Your task to perform on an android device: turn vacation reply on in the gmail app Image 0: 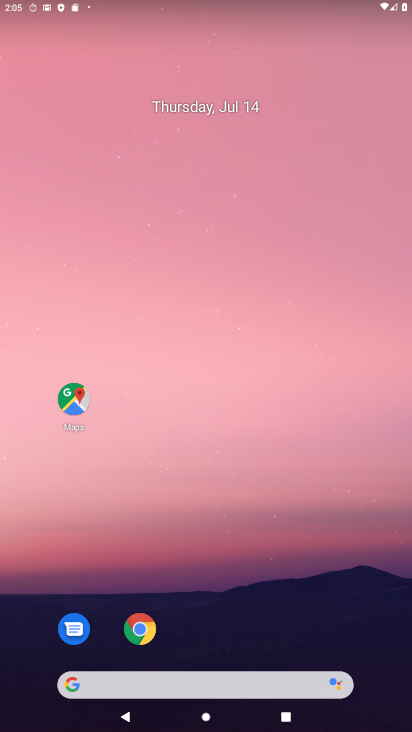
Step 0: drag from (232, 657) to (229, 4)
Your task to perform on an android device: turn vacation reply on in the gmail app Image 1: 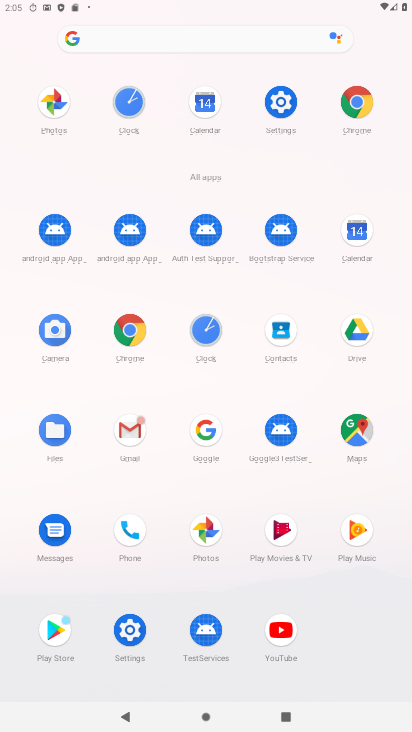
Step 1: click (133, 434)
Your task to perform on an android device: turn vacation reply on in the gmail app Image 2: 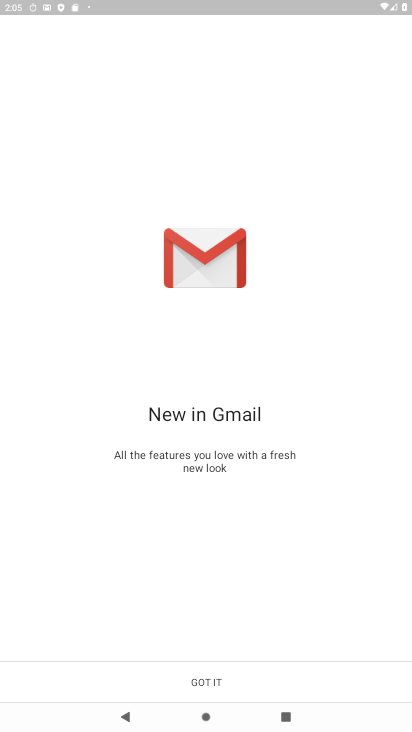
Step 2: click (237, 675)
Your task to perform on an android device: turn vacation reply on in the gmail app Image 3: 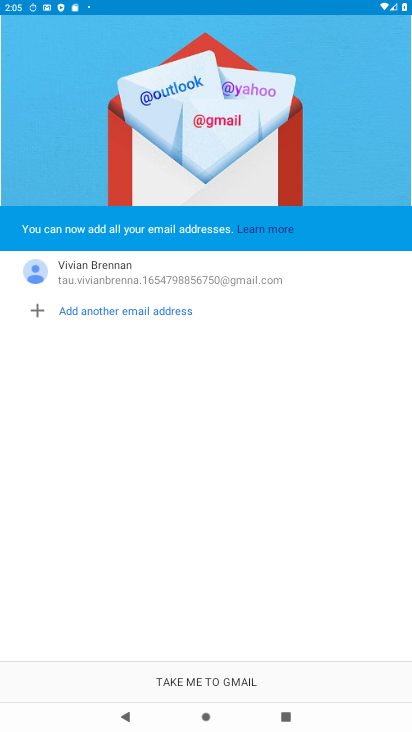
Step 3: click (238, 674)
Your task to perform on an android device: turn vacation reply on in the gmail app Image 4: 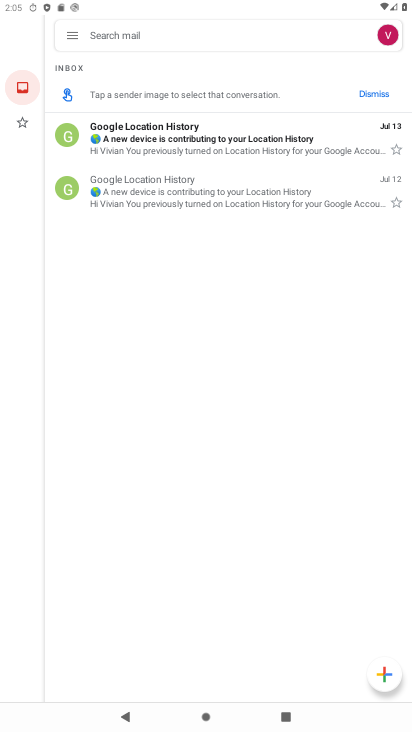
Step 4: click (69, 38)
Your task to perform on an android device: turn vacation reply on in the gmail app Image 5: 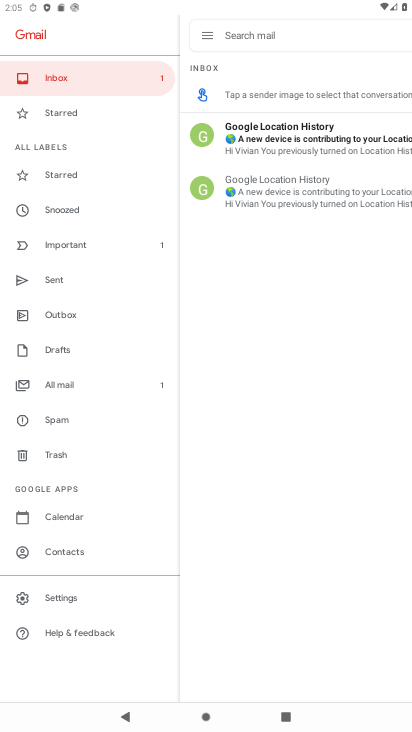
Step 5: click (57, 594)
Your task to perform on an android device: turn vacation reply on in the gmail app Image 6: 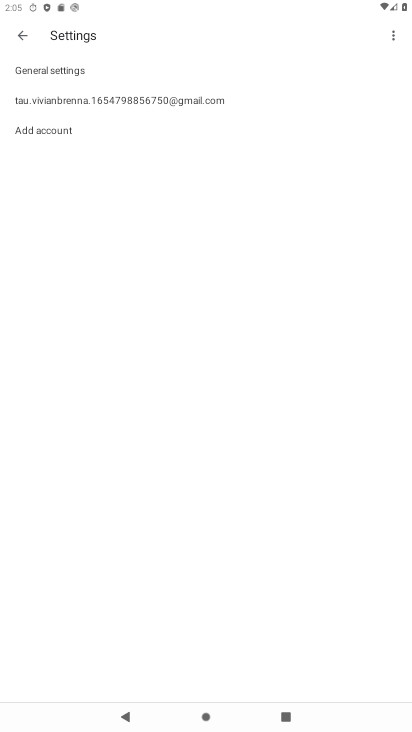
Step 6: click (127, 97)
Your task to perform on an android device: turn vacation reply on in the gmail app Image 7: 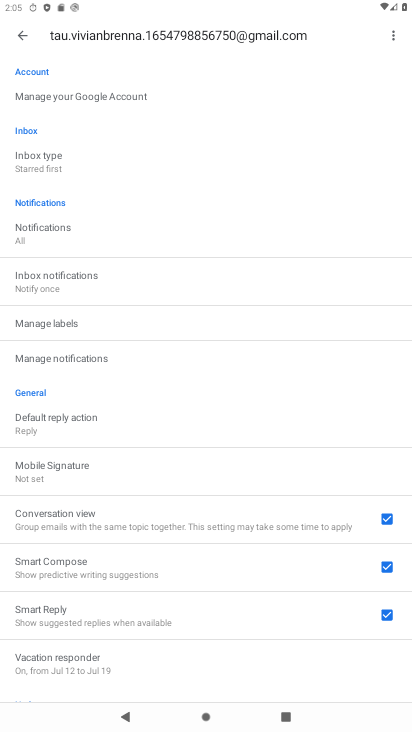
Step 7: drag from (145, 613) to (149, 482)
Your task to perform on an android device: turn vacation reply on in the gmail app Image 8: 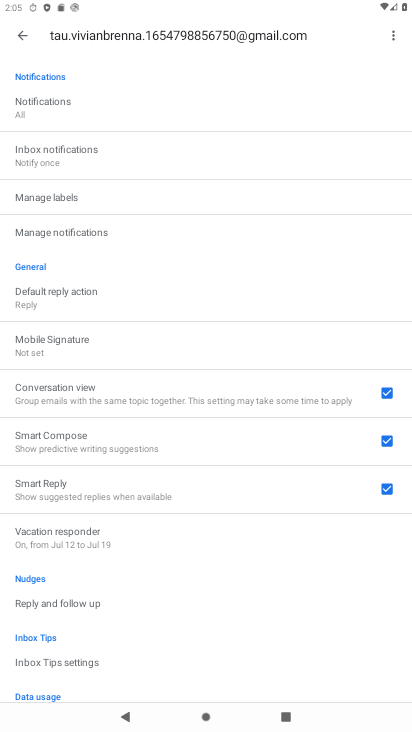
Step 8: click (88, 541)
Your task to perform on an android device: turn vacation reply on in the gmail app Image 9: 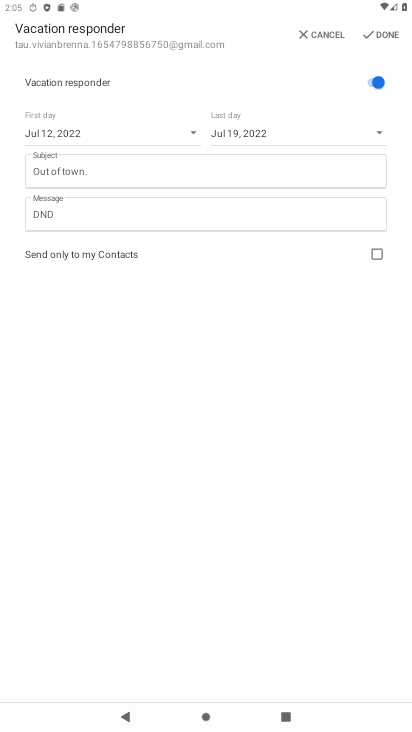
Step 9: task complete